Your task to perform on an android device: see creations saved in the google photos Image 0: 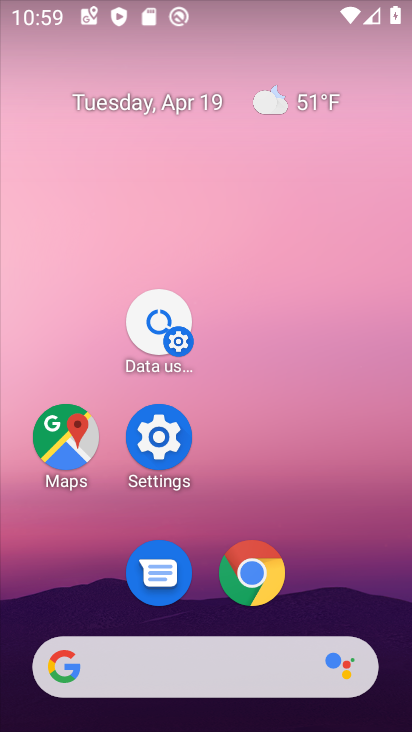
Step 0: drag from (373, 592) to (348, 4)
Your task to perform on an android device: see creations saved in the google photos Image 1: 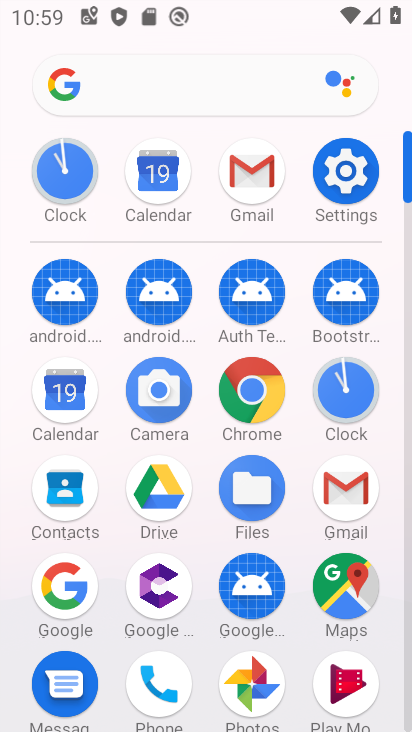
Step 1: click (245, 676)
Your task to perform on an android device: see creations saved in the google photos Image 2: 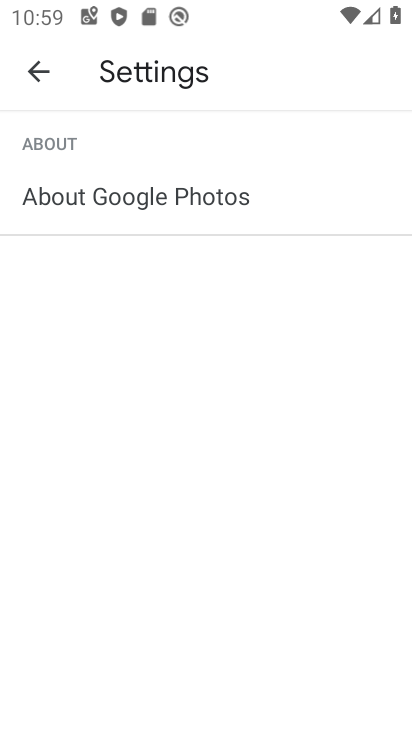
Step 2: click (35, 78)
Your task to perform on an android device: see creations saved in the google photos Image 3: 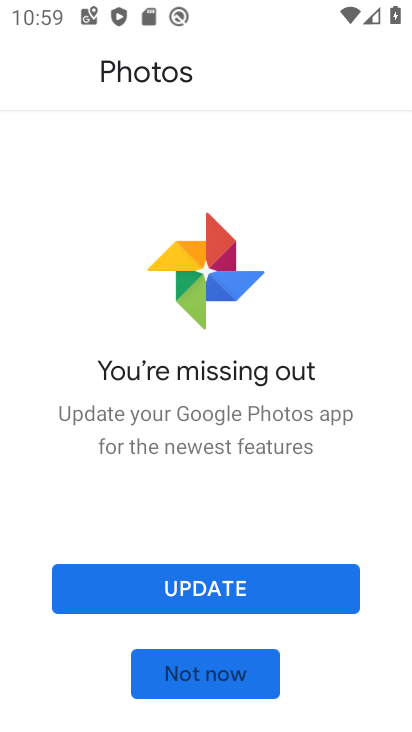
Step 3: click (231, 657)
Your task to perform on an android device: see creations saved in the google photos Image 4: 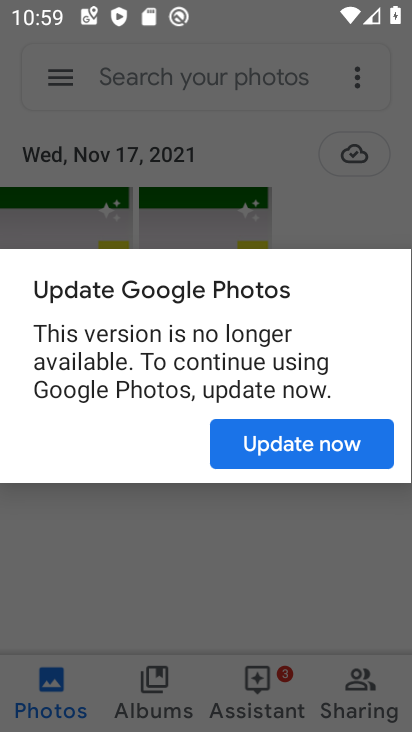
Step 4: click (279, 449)
Your task to perform on an android device: see creations saved in the google photos Image 5: 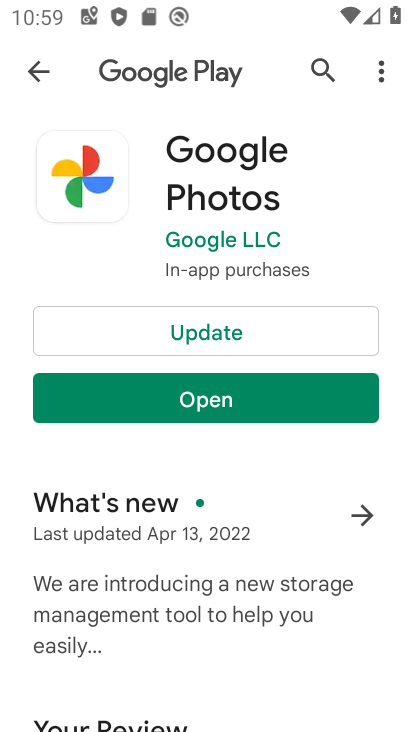
Step 5: click (168, 407)
Your task to perform on an android device: see creations saved in the google photos Image 6: 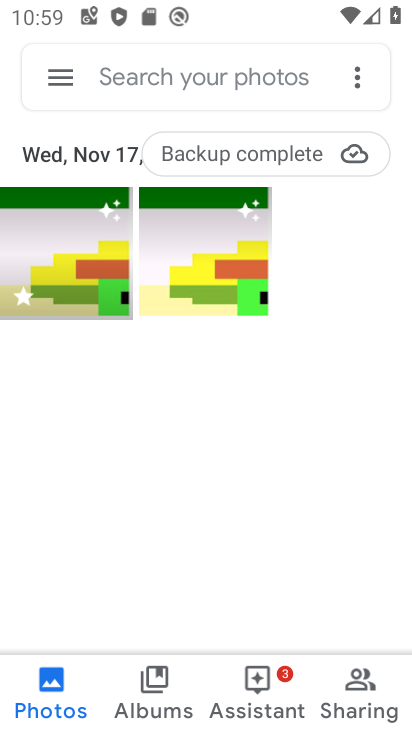
Step 6: click (130, 85)
Your task to perform on an android device: see creations saved in the google photos Image 7: 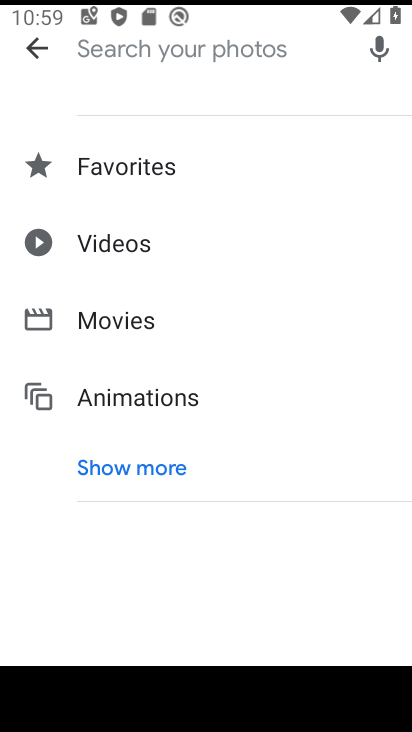
Step 7: click (160, 469)
Your task to perform on an android device: see creations saved in the google photos Image 8: 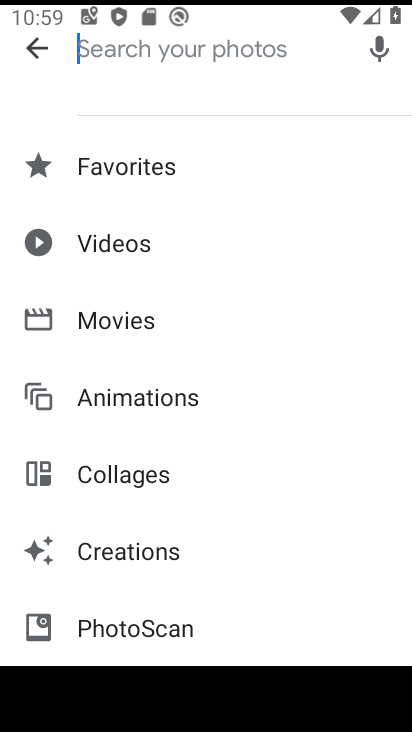
Step 8: click (127, 553)
Your task to perform on an android device: see creations saved in the google photos Image 9: 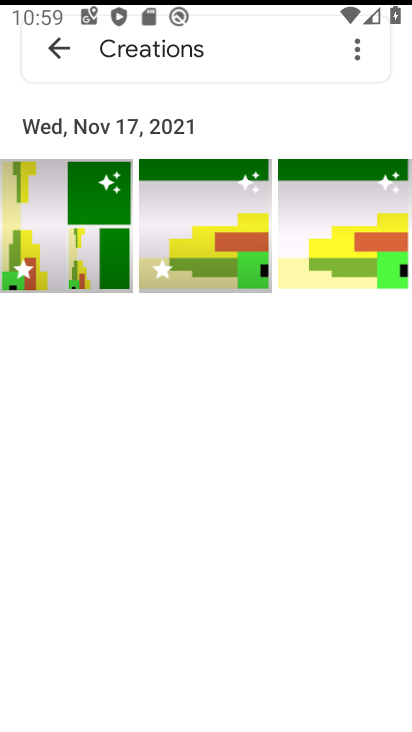
Step 9: task complete